Your task to perform on an android device: open wifi settings Image 0: 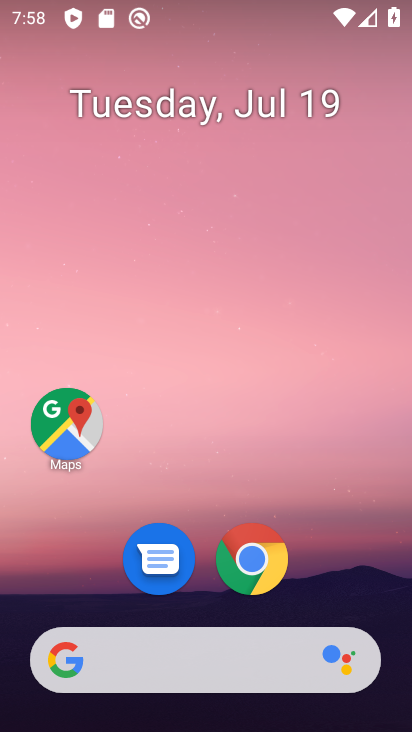
Step 0: drag from (125, 21) to (242, 531)
Your task to perform on an android device: open wifi settings Image 1: 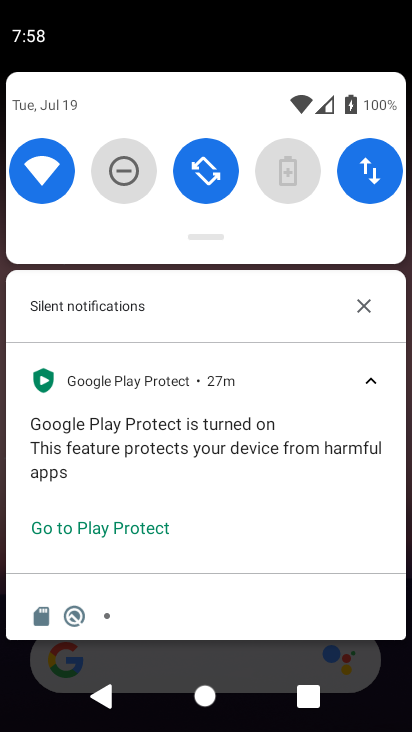
Step 1: click (40, 162)
Your task to perform on an android device: open wifi settings Image 2: 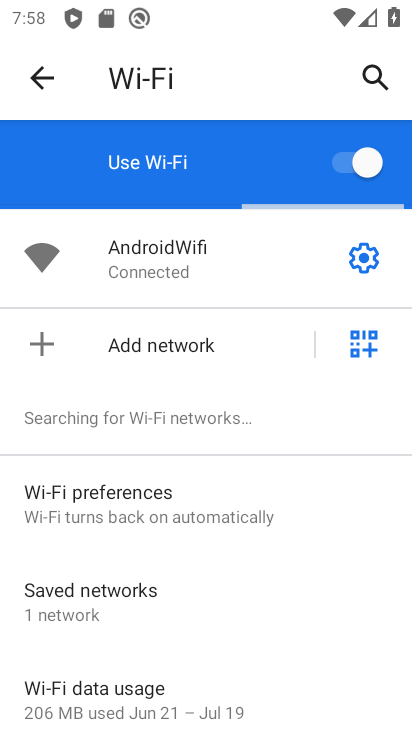
Step 2: task complete